Your task to perform on an android device: Open the stopwatch Image 0: 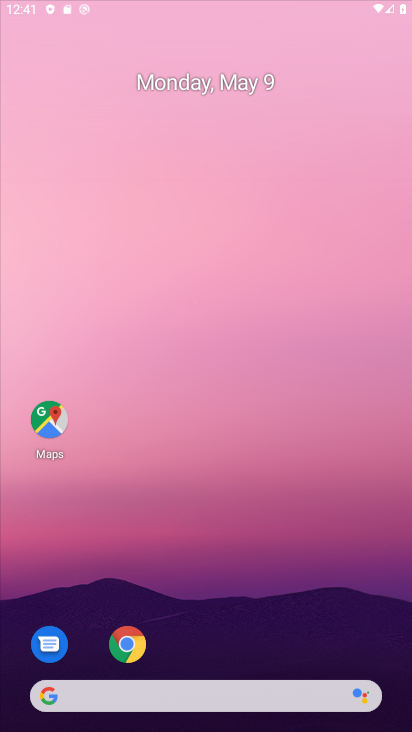
Step 0: click (199, 110)
Your task to perform on an android device: Open the stopwatch Image 1: 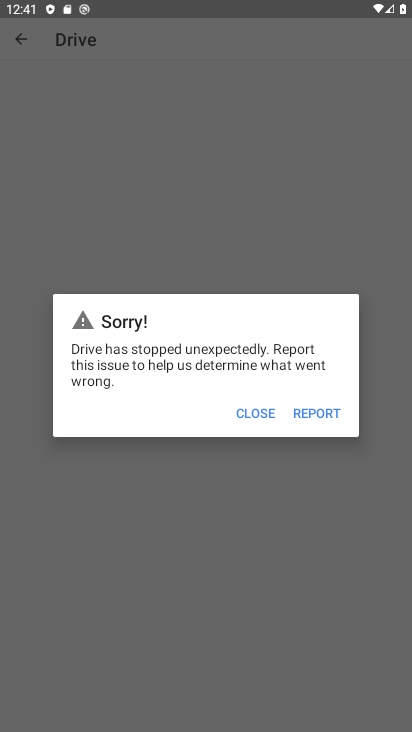
Step 1: press home button
Your task to perform on an android device: Open the stopwatch Image 2: 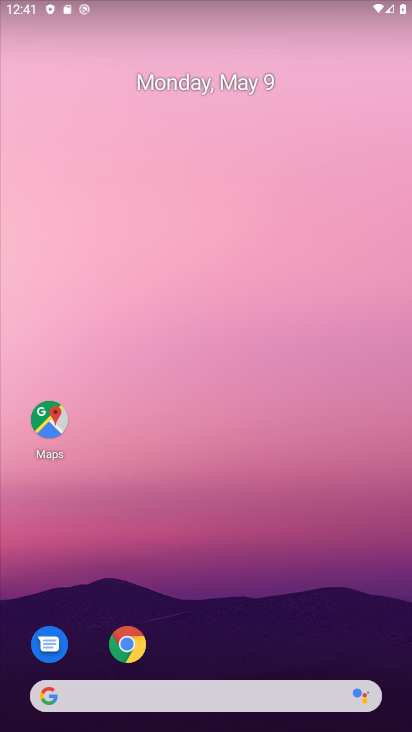
Step 2: drag from (269, 635) to (234, 101)
Your task to perform on an android device: Open the stopwatch Image 3: 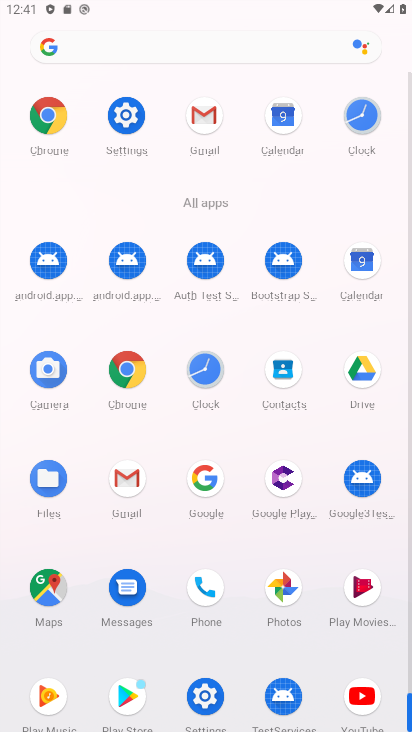
Step 3: click (197, 381)
Your task to perform on an android device: Open the stopwatch Image 4: 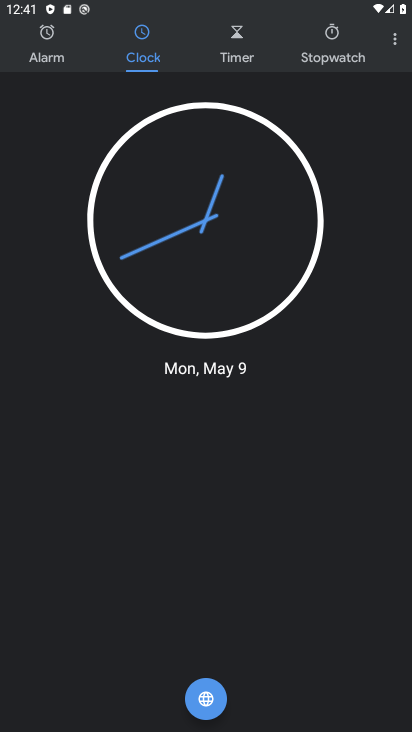
Step 4: click (313, 57)
Your task to perform on an android device: Open the stopwatch Image 5: 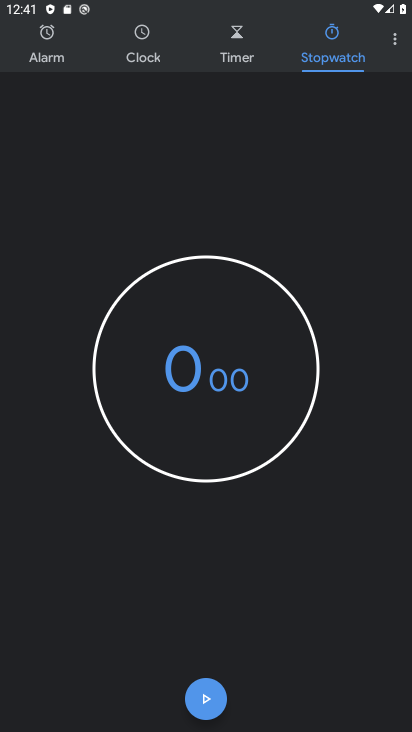
Step 5: task complete